Your task to perform on an android device: toggle translation in the chrome app Image 0: 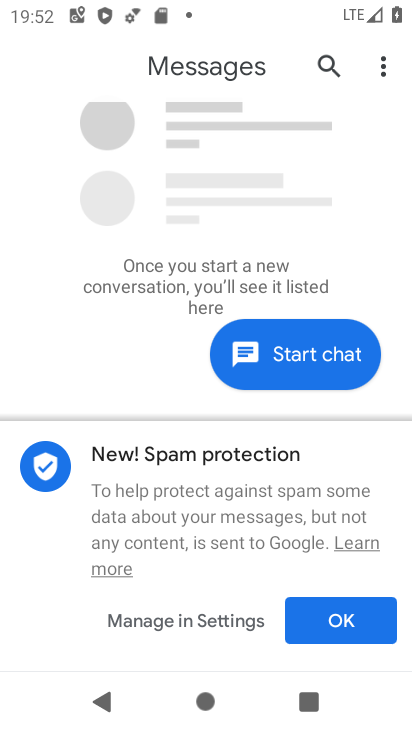
Step 0: press home button
Your task to perform on an android device: toggle translation in the chrome app Image 1: 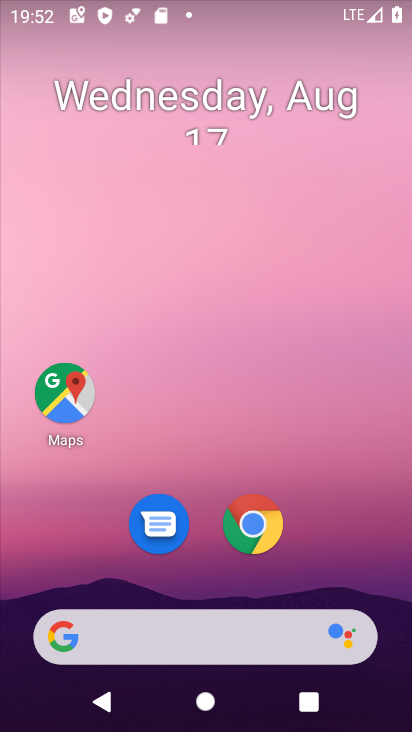
Step 1: click (254, 520)
Your task to perform on an android device: toggle translation in the chrome app Image 2: 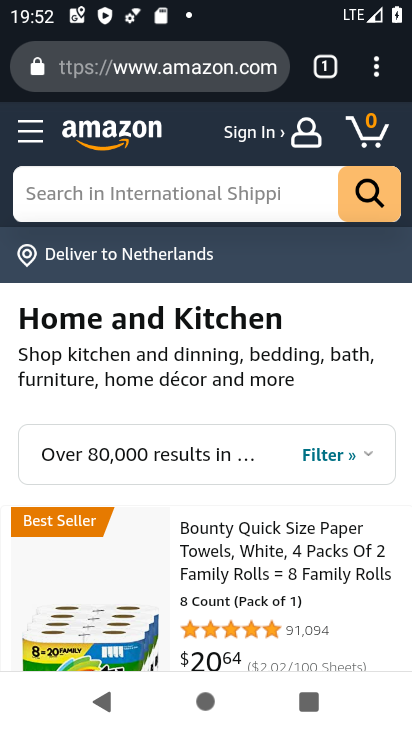
Step 2: click (375, 76)
Your task to perform on an android device: toggle translation in the chrome app Image 3: 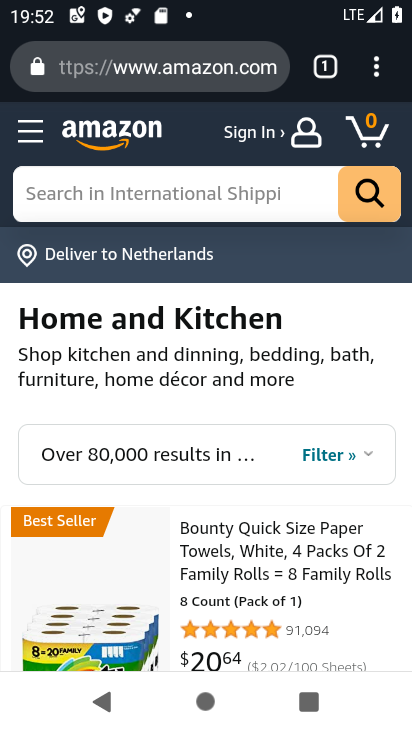
Step 3: click (375, 77)
Your task to perform on an android device: toggle translation in the chrome app Image 4: 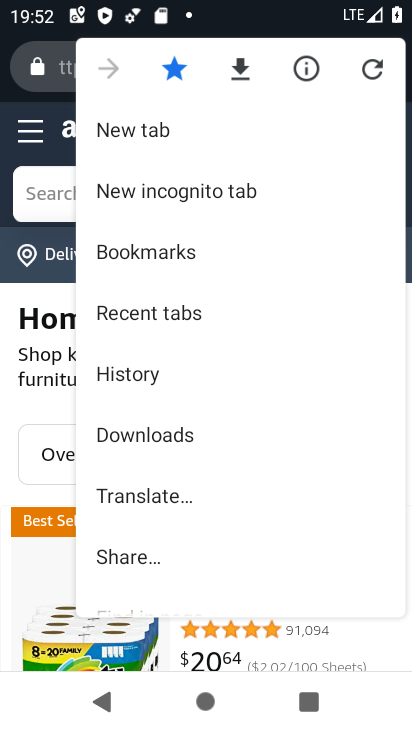
Step 4: drag from (228, 511) to (279, 121)
Your task to perform on an android device: toggle translation in the chrome app Image 5: 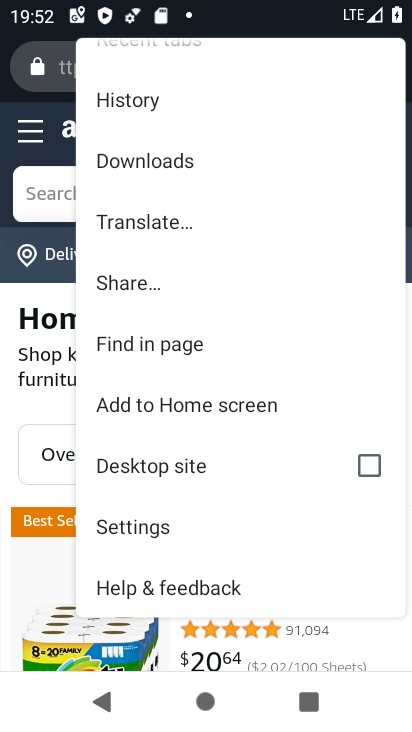
Step 5: click (158, 519)
Your task to perform on an android device: toggle translation in the chrome app Image 6: 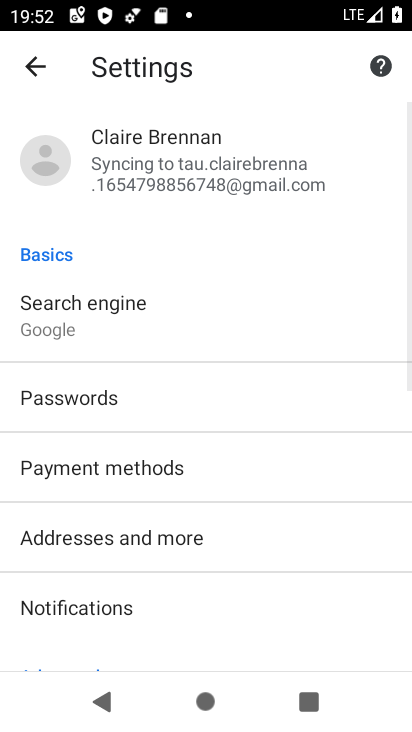
Step 6: drag from (233, 510) to (271, 62)
Your task to perform on an android device: toggle translation in the chrome app Image 7: 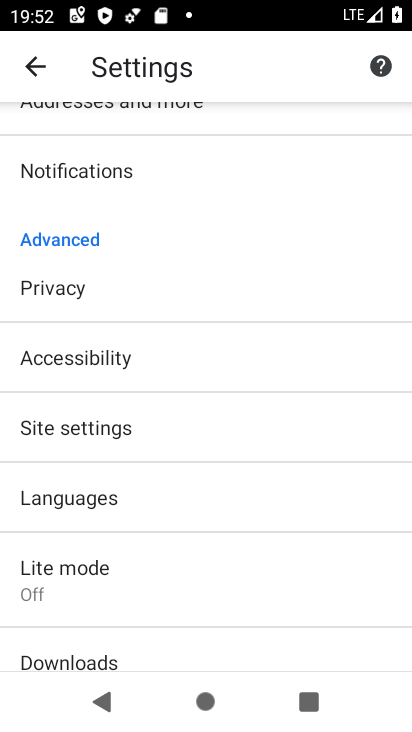
Step 7: click (192, 499)
Your task to perform on an android device: toggle translation in the chrome app Image 8: 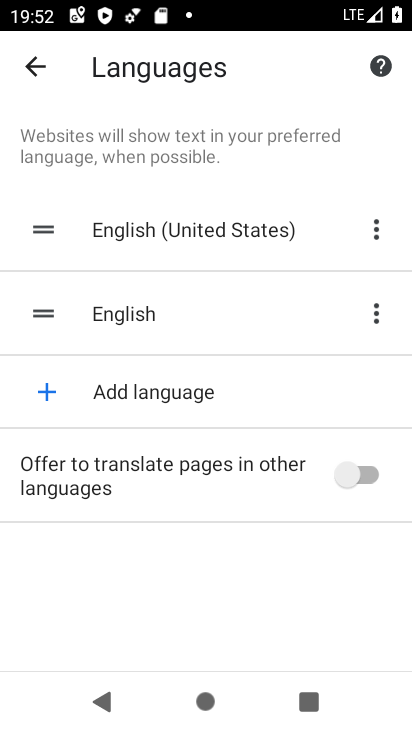
Step 8: click (366, 475)
Your task to perform on an android device: toggle translation in the chrome app Image 9: 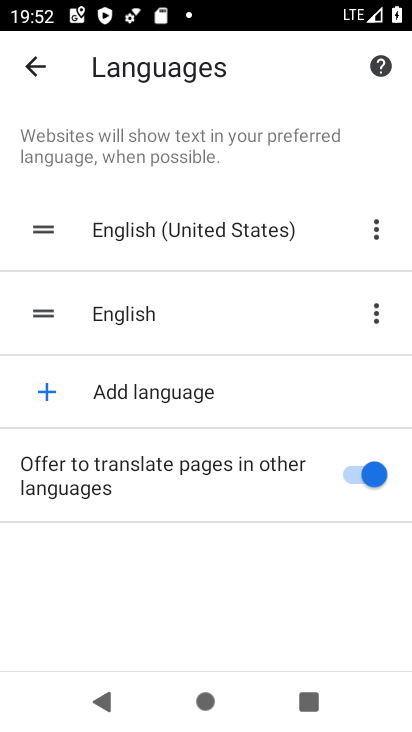
Step 9: task complete